Your task to perform on an android device: Go to wifi settings Image 0: 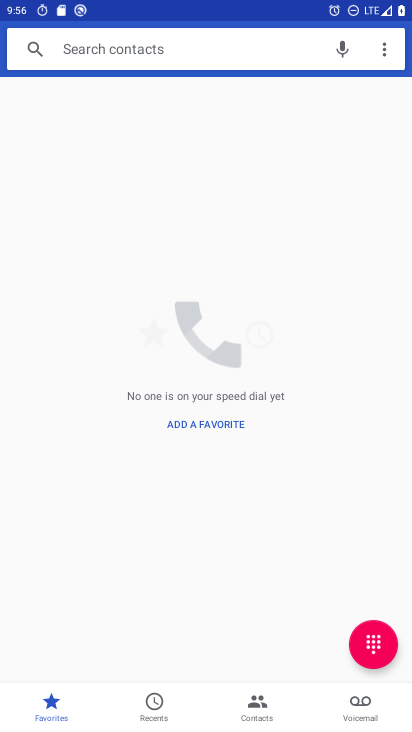
Step 0: press home button
Your task to perform on an android device: Go to wifi settings Image 1: 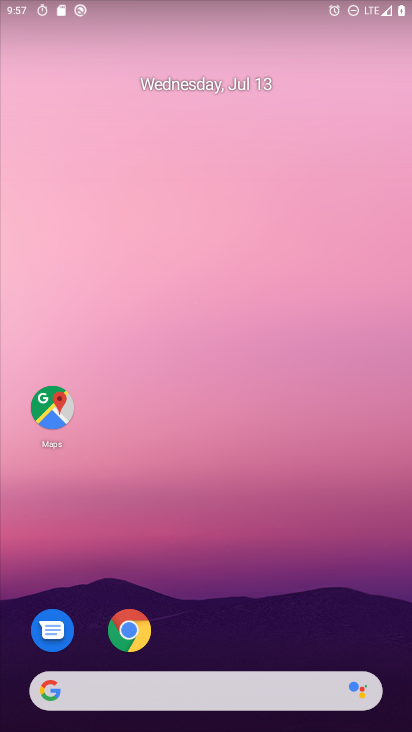
Step 1: drag from (380, 651) to (219, 23)
Your task to perform on an android device: Go to wifi settings Image 2: 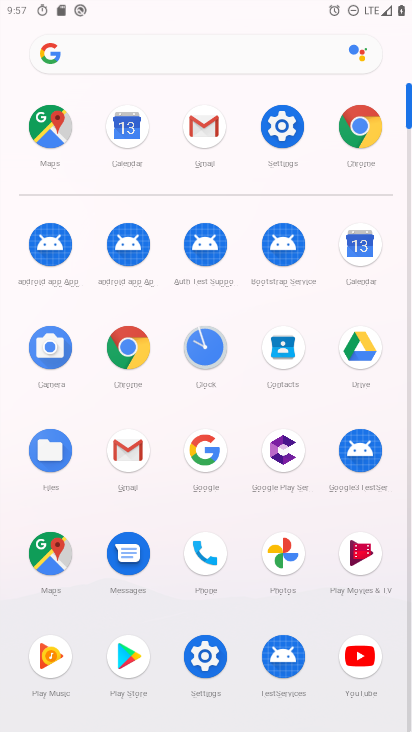
Step 2: click (200, 671)
Your task to perform on an android device: Go to wifi settings Image 3: 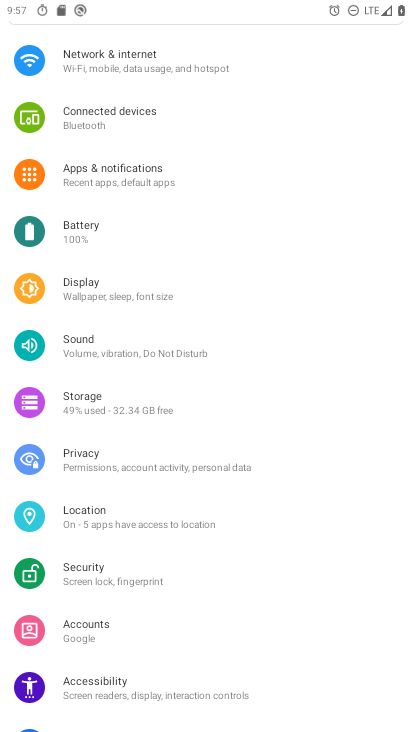
Step 3: drag from (68, 75) to (230, 692)
Your task to perform on an android device: Go to wifi settings Image 4: 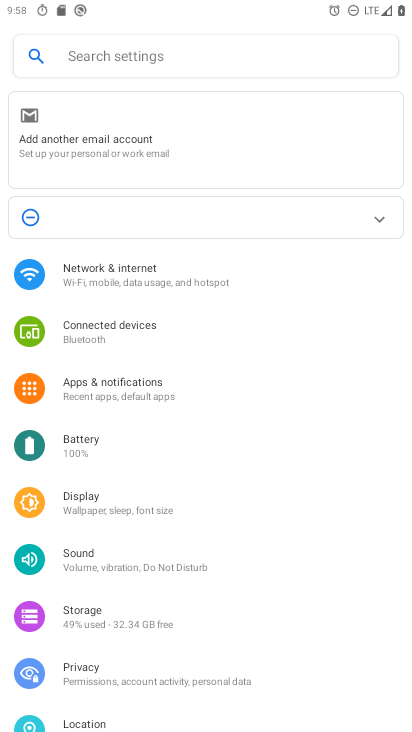
Step 4: click (107, 281)
Your task to perform on an android device: Go to wifi settings Image 5: 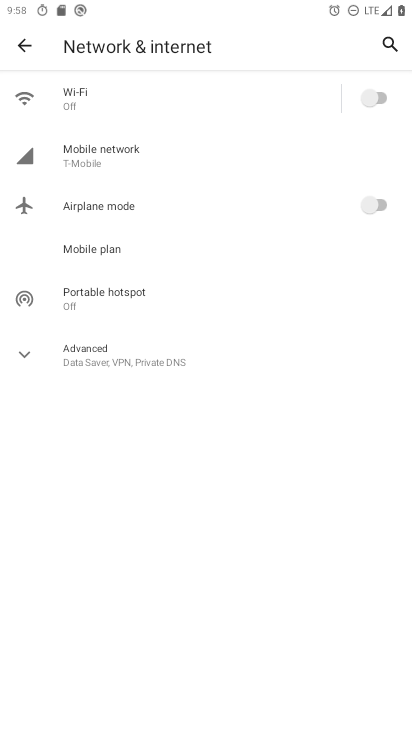
Step 5: click (173, 87)
Your task to perform on an android device: Go to wifi settings Image 6: 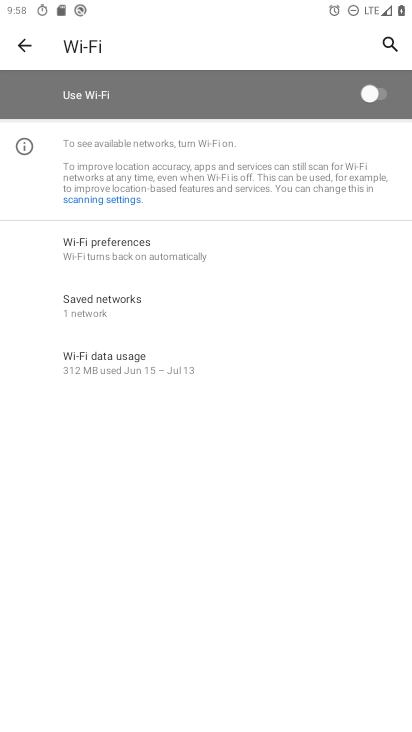
Step 6: task complete